Your task to perform on an android device: Open Maps and search for coffee Image 0: 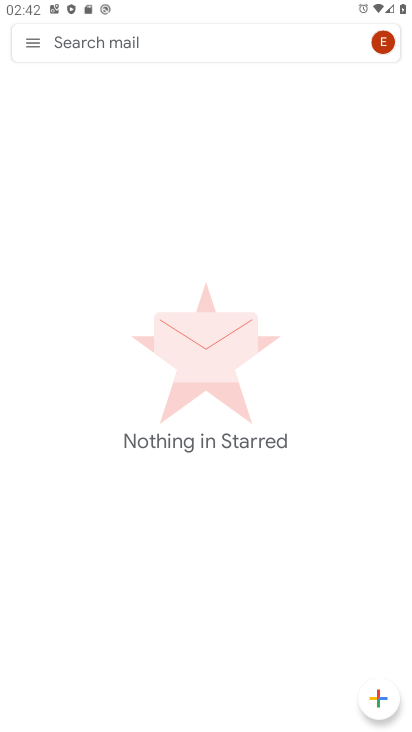
Step 0: press home button
Your task to perform on an android device: Open Maps and search for coffee Image 1: 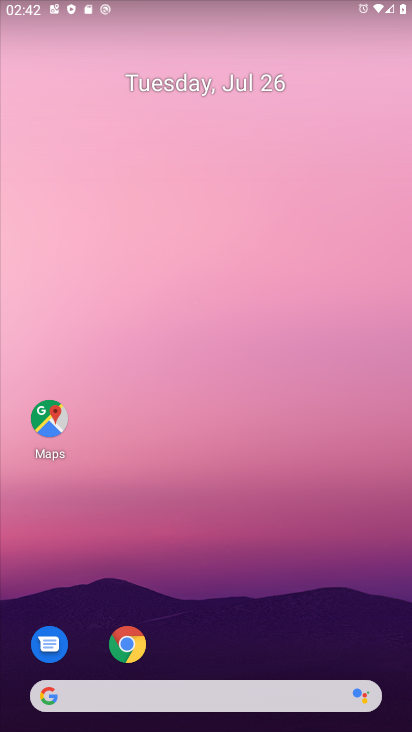
Step 1: drag from (217, 316) to (214, 227)
Your task to perform on an android device: Open Maps and search for coffee Image 2: 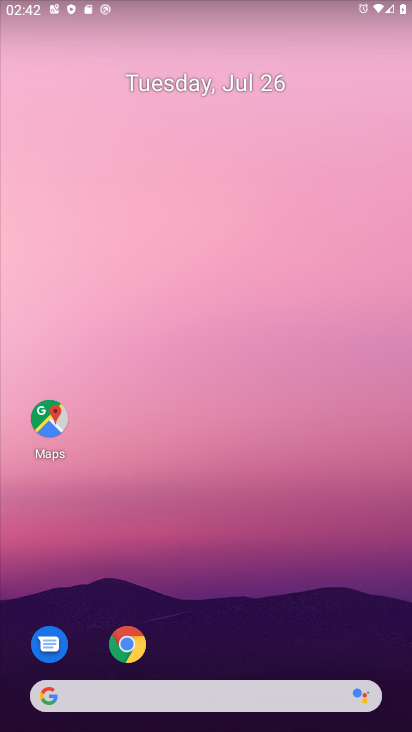
Step 2: click (45, 425)
Your task to perform on an android device: Open Maps and search for coffee Image 3: 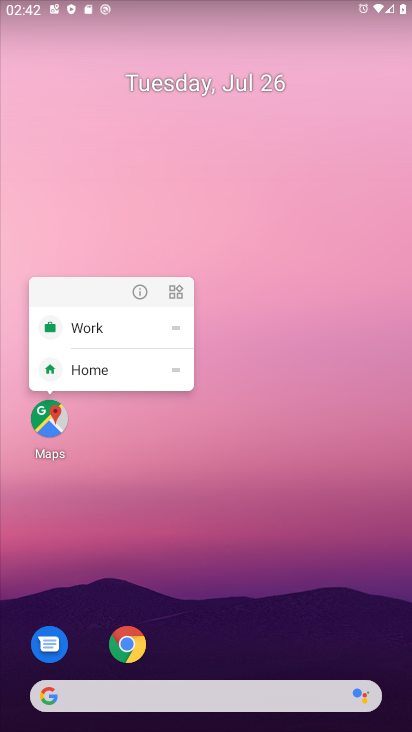
Step 3: click (45, 425)
Your task to perform on an android device: Open Maps and search for coffee Image 4: 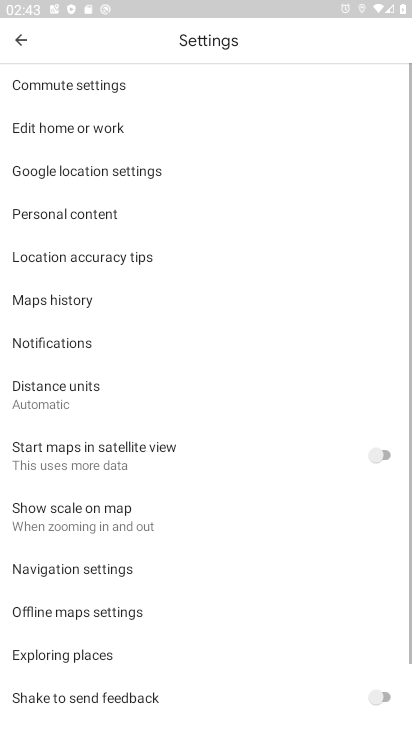
Step 4: click (20, 39)
Your task to perform on an android device: Open Maps and search for coffee Image 5: 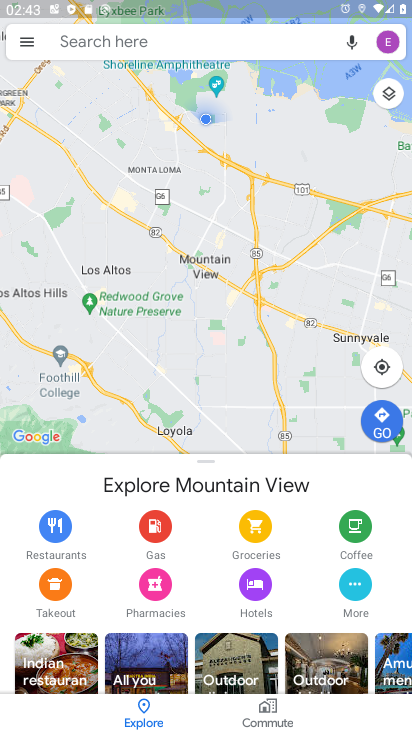
Step 5: click (174, 31)
Your task to perform on an android device: Open Maps and search for coffee Image 6: 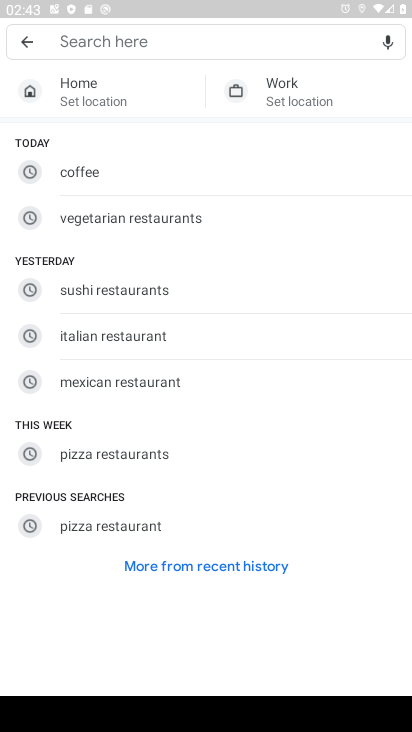
Step 6: click (111, 163)
Your task to perform on an android device: Open Maps and search for coffee Image 7: 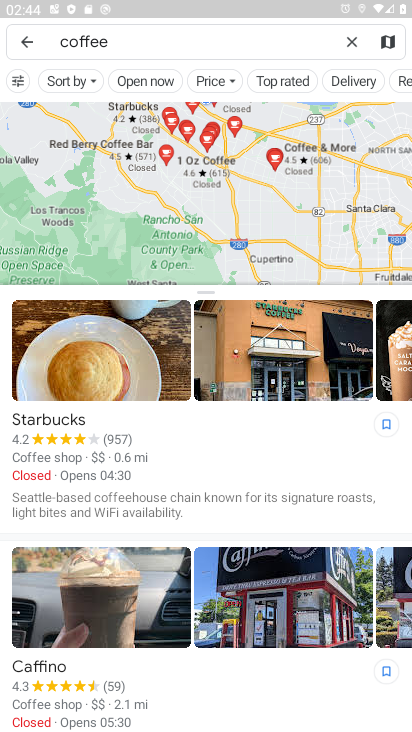
Step 7: task complete